Your task to perform on an android device: toggle show notifications on the lock screen Image 0: 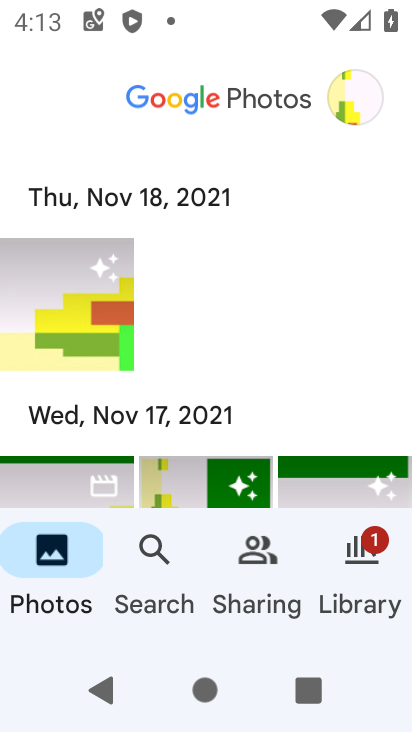
Step 0: press home button
Your task to perform on an android device: toggle show notifications on the lock screen Image 1: 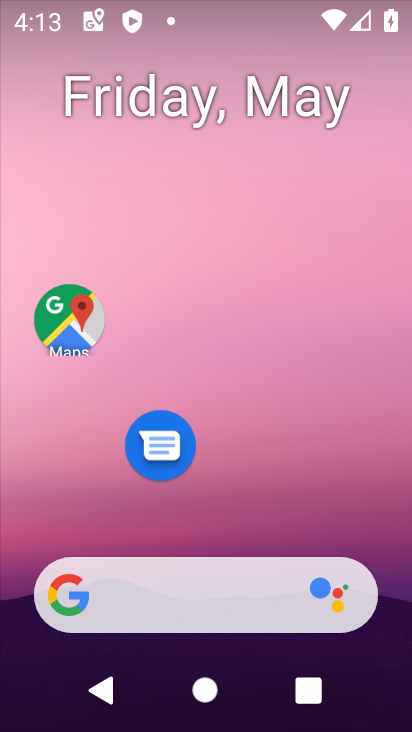
Step 1: drag from (247, 515) to (230, 47)
Your task to perform on an android device: toggle show notifications on the lock screen Image 2: 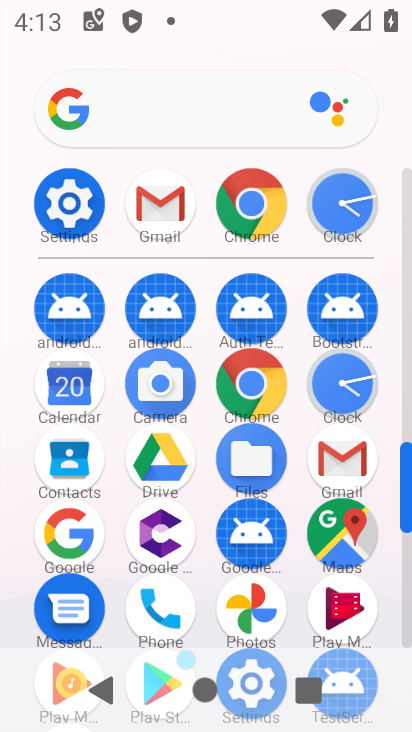
Step 2: click (86, 196)
Your task to perform on an android device: toggle show notifications on the lock screen Image 3: 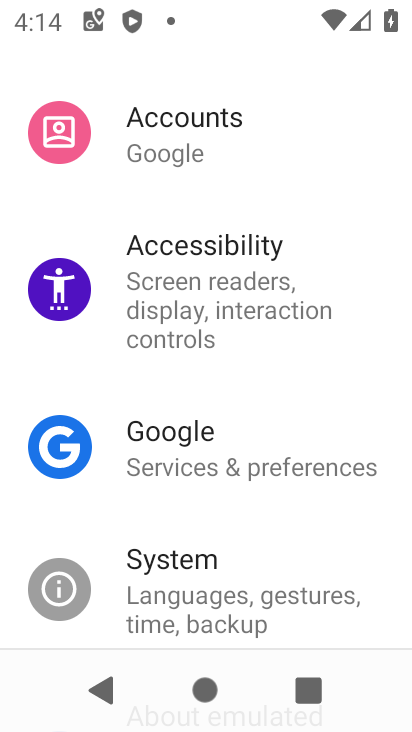
Step 3: drag from (147, 178) to (116, 584)
Your task to perform on an android device: toggle show notifications on the lock screen Image 4: 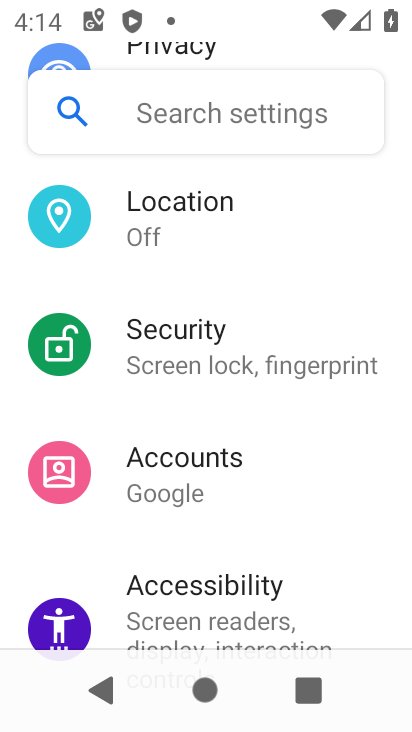
Step 4: drag from (271, 268) to (250, 635)
Your task to perform on an android device: toggle show notifications on the lock screen Image 5: 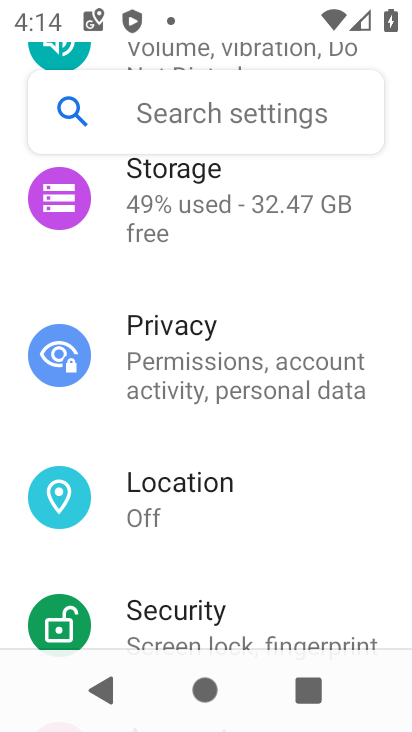
Step 5: drag from (269, 255) to (266, 625)
Your task to perform on an android device: toggle show notifications on the lock screen Image 6: 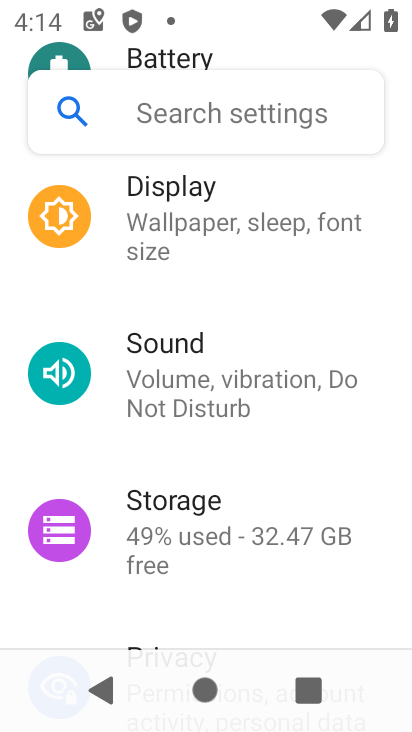
Step 6: drag from (293, 287) to (297, 638)
Your task to perform on an android device: toggle show notifications on the lock screen Image 7: 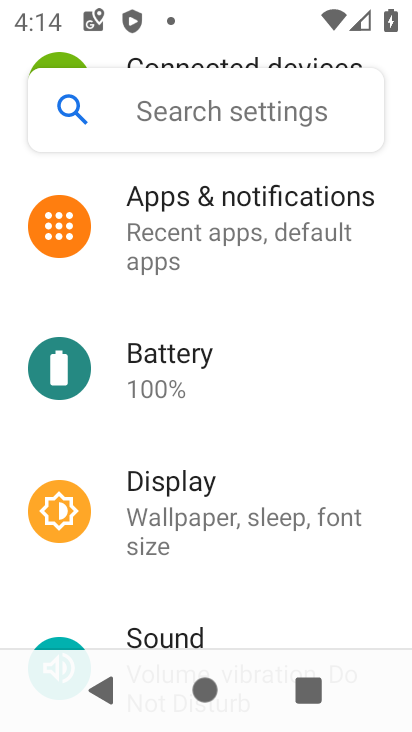
Step 7: drag from (312, 248) to (303, 522)
Your task to perform on an android device: toggle show notifications on the lock screen Image 8: 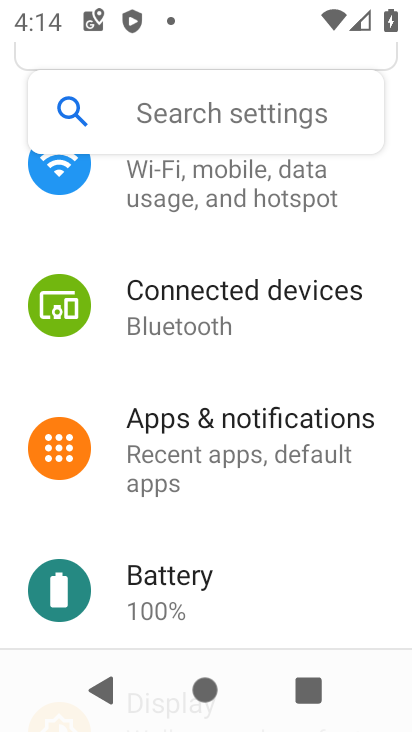
Step 8: click (300, 454)
Your task to perform on an android device: toggle show notifications on the lock screen Image 9: 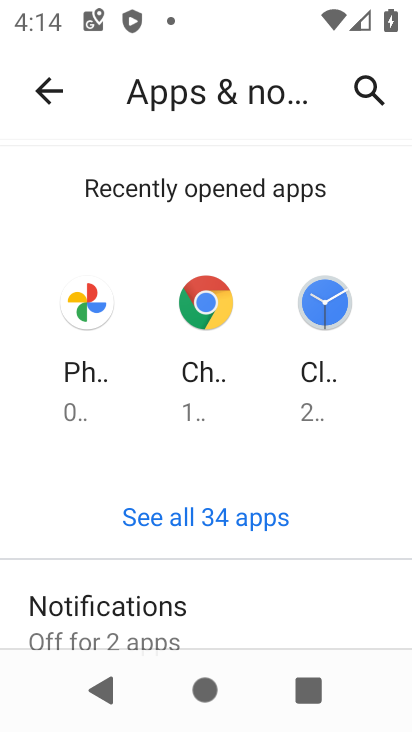
Step 9: drag from (196, 608) to (226, 318)
Your task to perform on an android device: toggle show notifications on the lock screen Image 10: 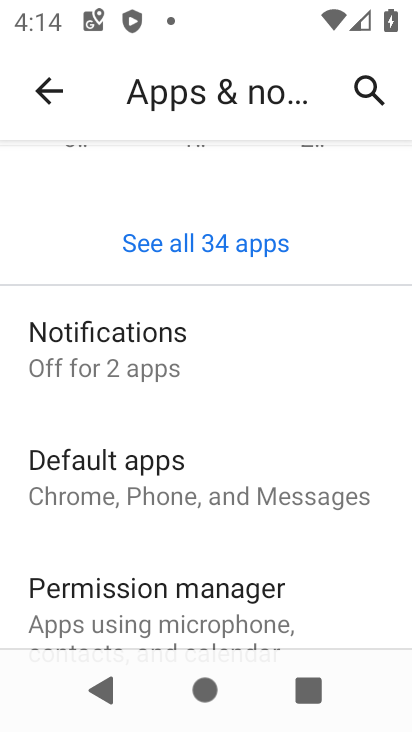
Step 10: click (155, 361)
Your task to perform on an android device: toggle show notifications on the lock screen Image 11: 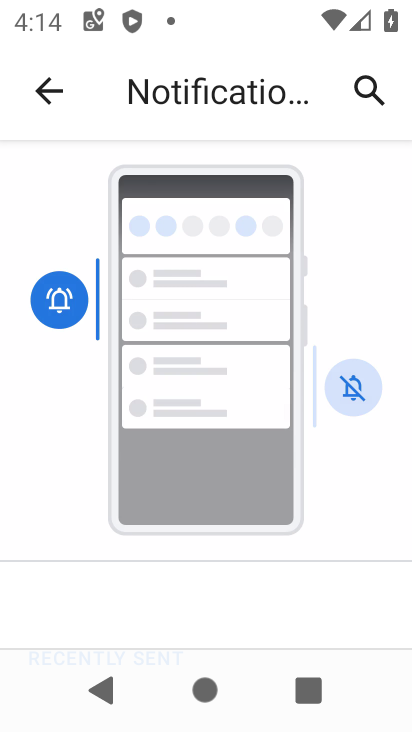
Step 11: drag from (206, 538) to (265, 202)
Your task to perform on an android device: toggle show notifications on the lock screen Image 12: 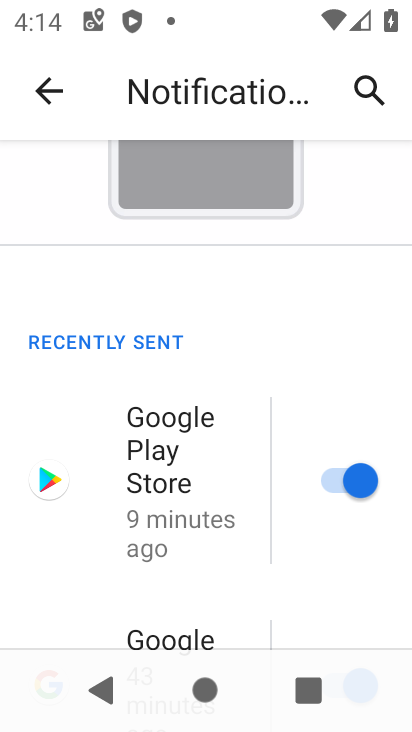
Step 12: drag from (165, 564) to (170, 301)
Your task to perform on an android device: toggle show notifications on the lock screen Image 13: 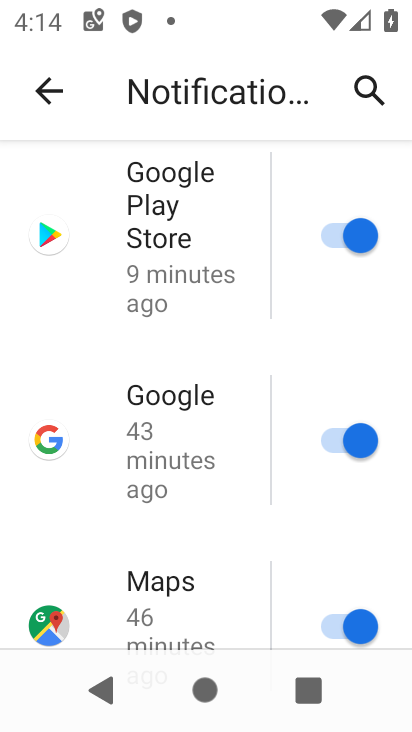
Step 13: drag from (176, 544) to (215, 213)
Your task to perform on an android device: toggle show notifications on the lock screen Image 14: 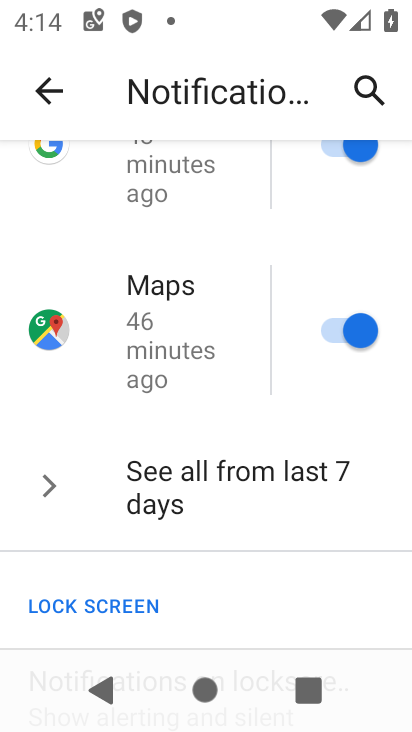
Step 14: drag from (145, 587) to (232, 265)
Your task to perform on an android device: toggle show notifications on the lock screen Image 15: 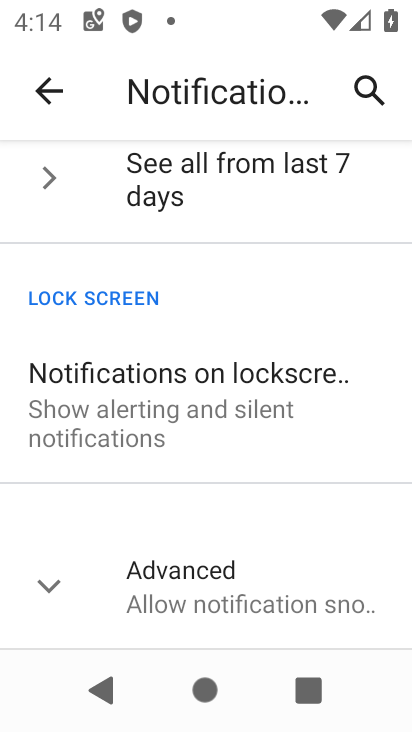
Step 15: click (160, 581)
Your task to perform on an android device: toggle show notifications on the lock screen Image 16: 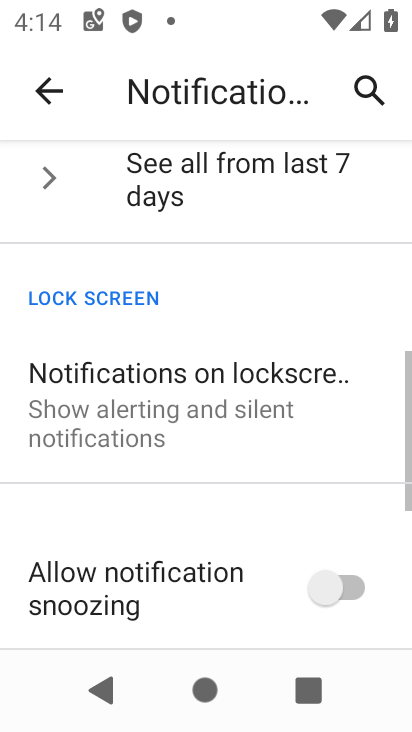
Step 16: drag from (165, 564) to (174, 421)
Your task to perform on an android device: toggle show notifications on the lock screen Image 17: 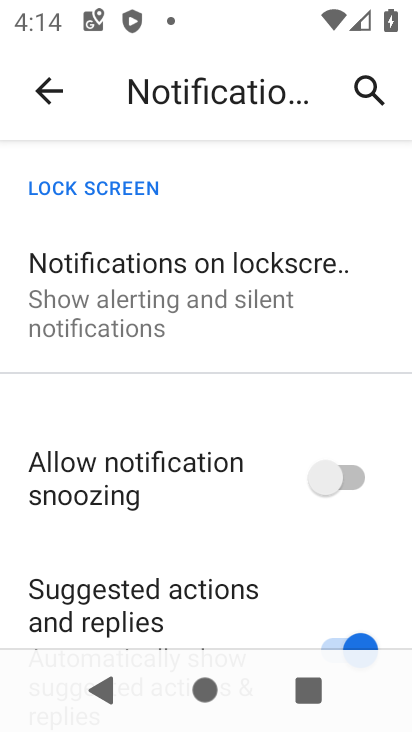
Step 17: drag from (213, 590) to (223, 390)
Your task to perform on an android device: toggle show notifications on the lock screen Image 18: 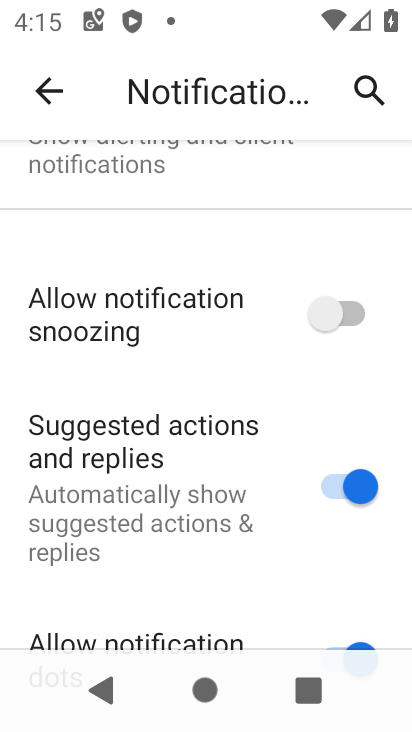
Step 18: click (192, 549)
Your task to perform on an android device: toggle show notifications on the lock screen Image 19: 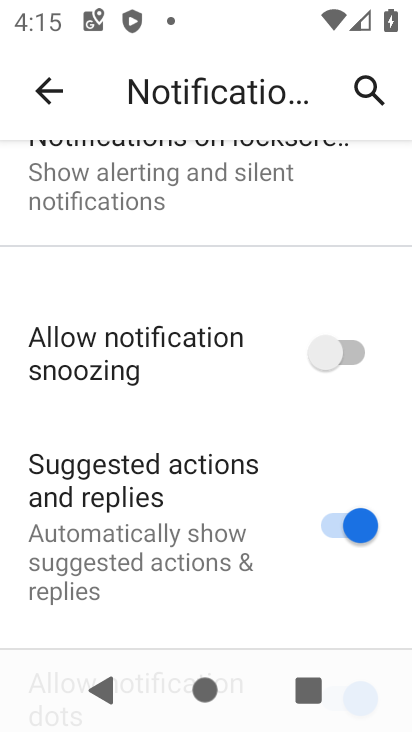
Step 19: click (168, 190)
Your task to perform on an android device: toggle show notifications on the lock screen Image 20: 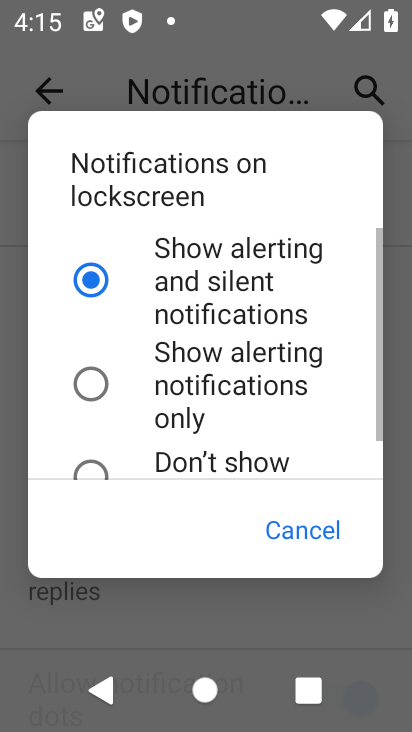
Step 20: click (176, 460)
Your task to perform on an android device: toggle show notifications on the lock screen Image 21: 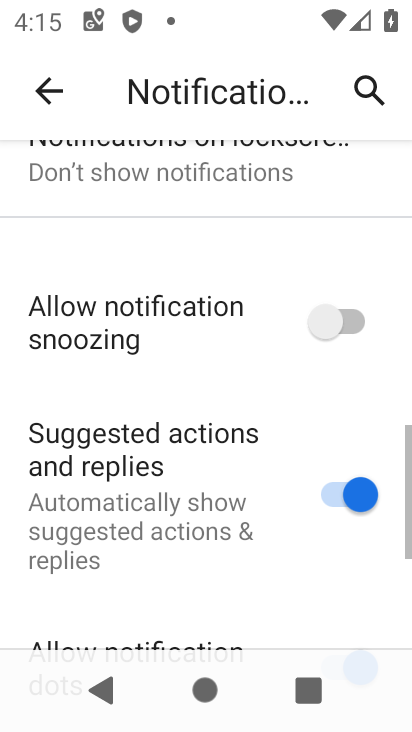
Step 21: task complete